Your task to perform on an android device: turn on location history Image 0: 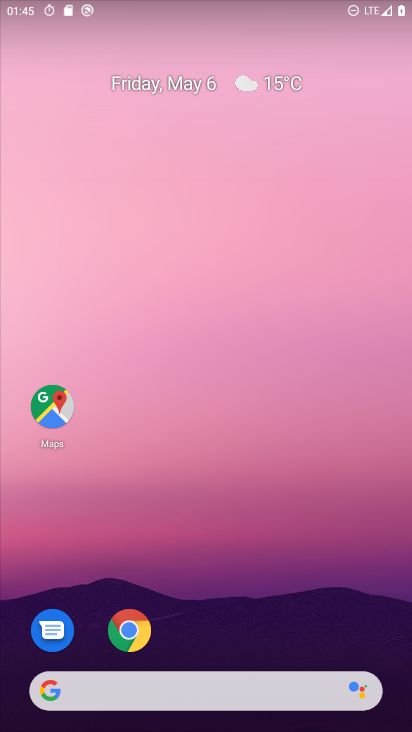
Step 0: drag from (300, 600) to (151, 0)
Your task to perform on an android device: turn on location history Image 1: 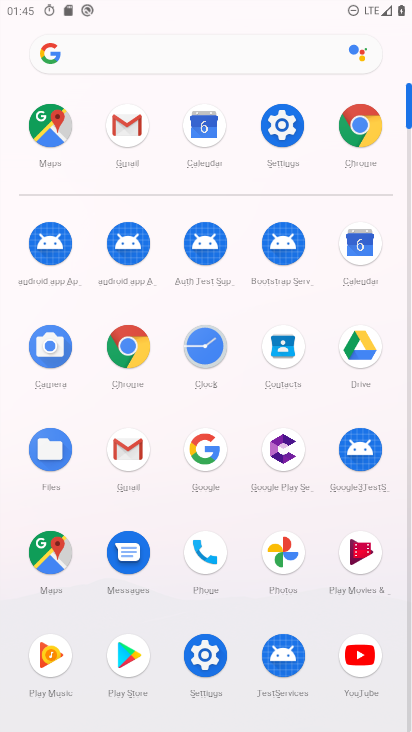
Step 1: click (291, 125)
Your task to perform on an android device: turn on location history Image 2: 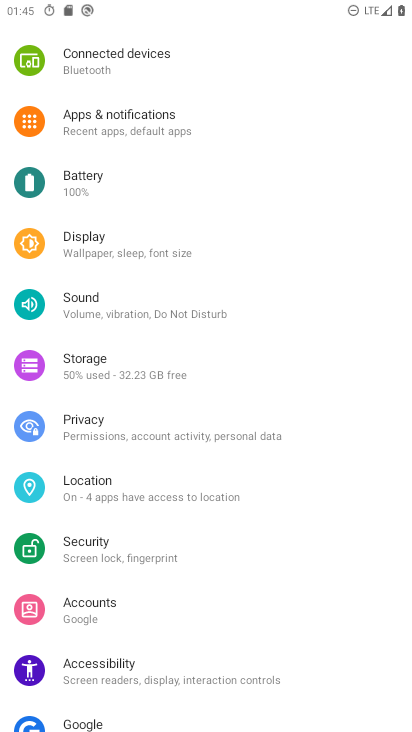
Step 2: drag from (239, 606) to (351, 189)
Your task to perform on an android device: turn on location history Image 3: 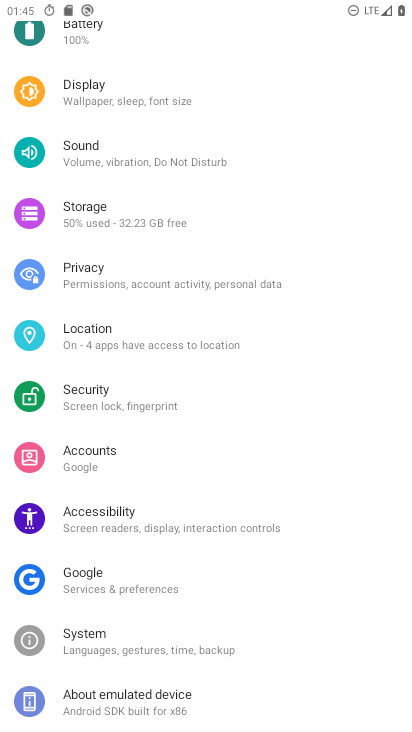
Step 3: click (127, 335)
Your task to perform on an android device: turn on location history Image 4: 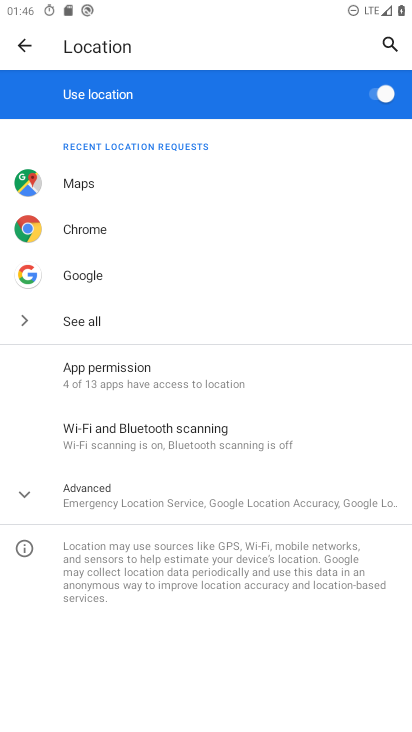
Step 4: click (109, 486)
Your task to perform on an android device: turn on location history Image 5: 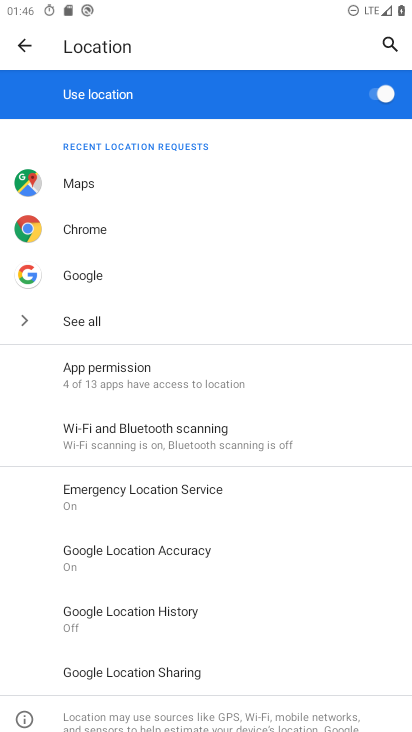
Step 5: click (176, 604)
Your task to perform on an android device: turn on location history Image 6: 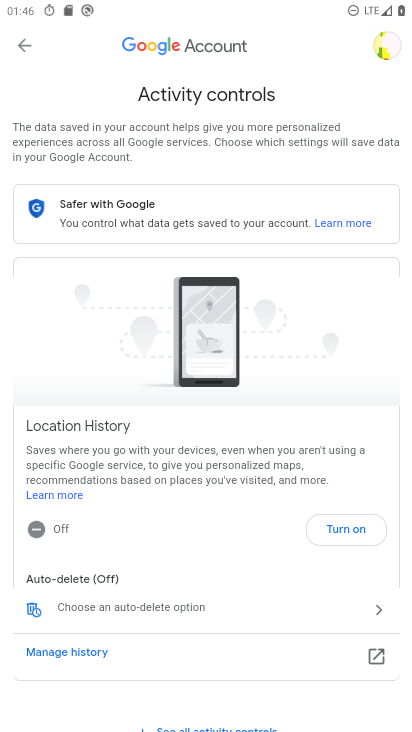
Step 6: click (340, 522)
Your task to perform on an android device: turn on location history Image 7: 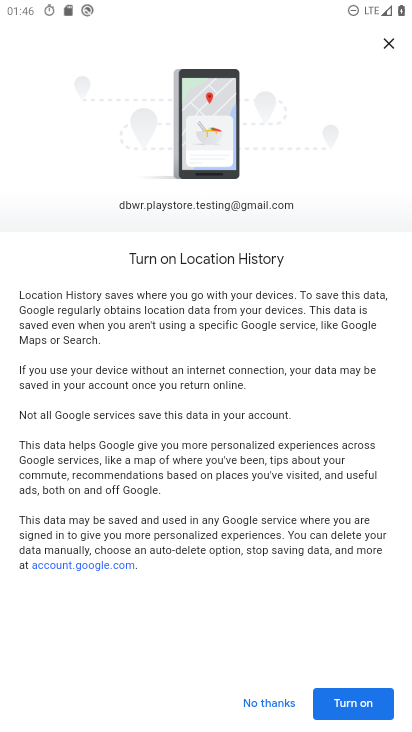
Step 7: click (375, 706)
Your task to perform on an android device: turn on location history Image 8: 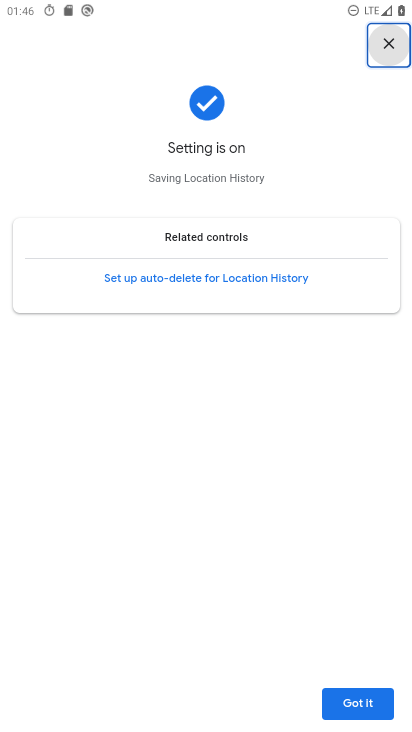
Step 8: task complete